Your task to perform on an android device: turn off data saver in the chrome app Image 0: 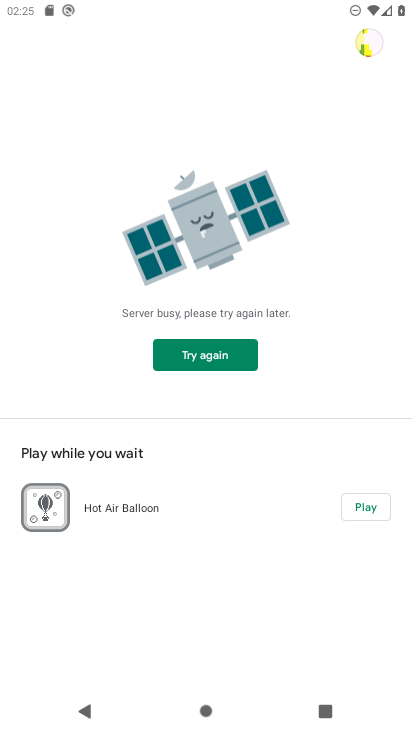
Step 0: press home button
Your task to perform on an android device: turn off data saver in the chrome app Image 1: 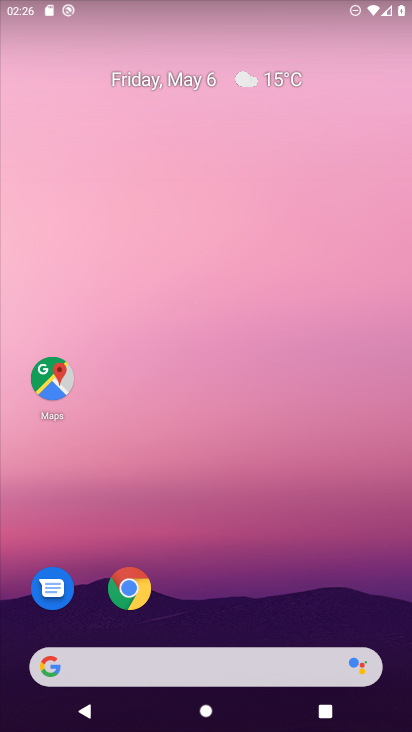
Step 1: click (134, 604)
Your task to perform on an android device: turn off data saver in the chrome app Image 2: 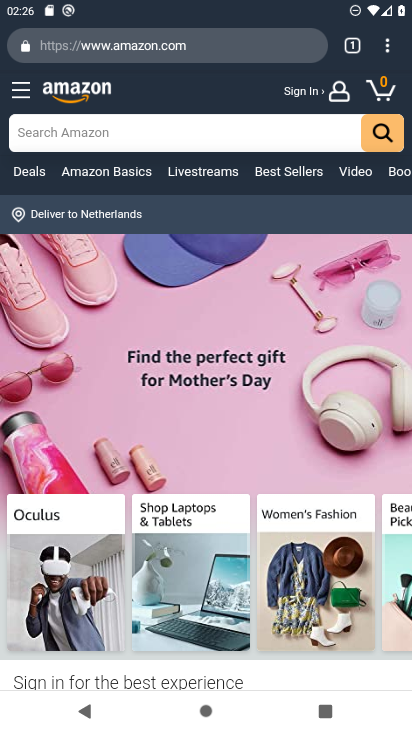
Step 2: click (390, 54)
Your task to perform on an android device: turn off data saver in the chrome app Image 3: 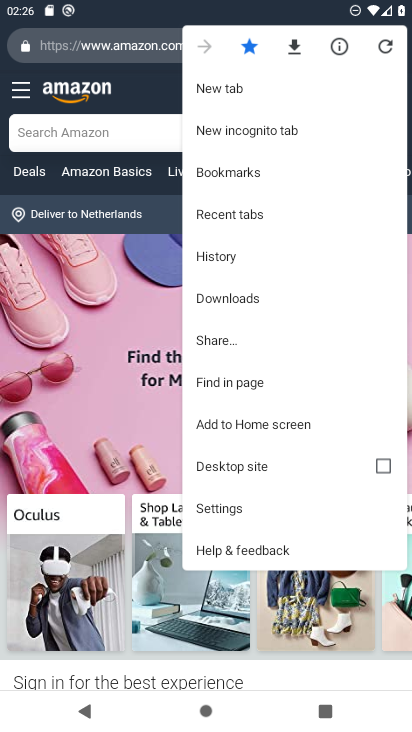
Step 3: click (238, 505)
Your task to perform on an android device: turn off data saver in the chrome app Image 4: 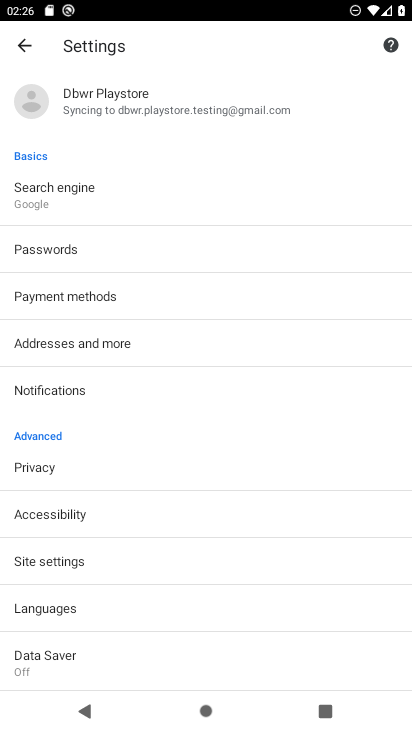
Step 4: click (64, 648)
Your task to perform on an android device: turn off data saver in the chrome app Image 5: 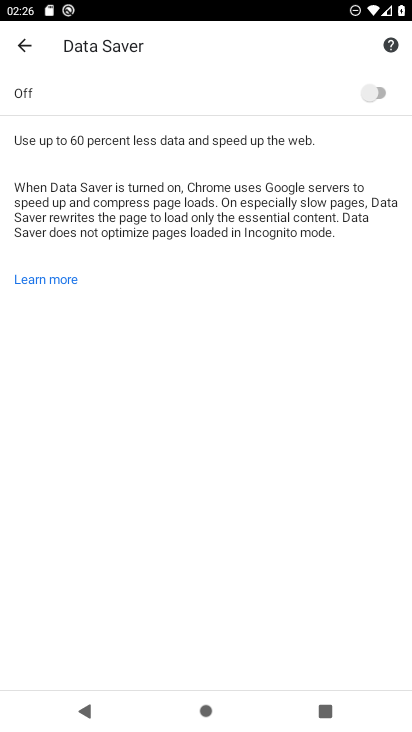
Step 5: task complete